Your task to perform on an android device: uninstall "WhatsApp Messenger" Image 0: 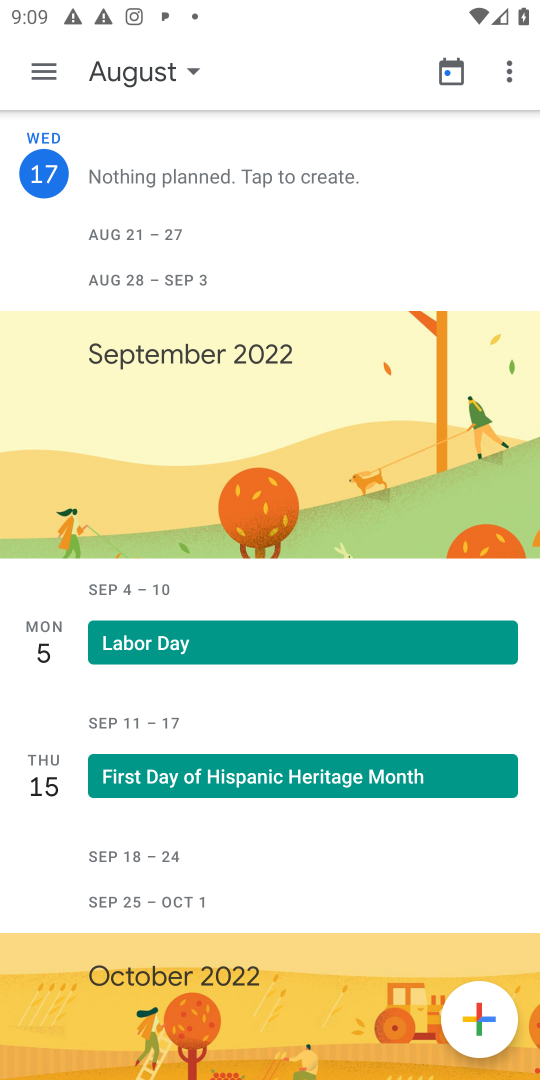
Step 0: press home button
Your task to perform on an android device: uninstall "WhatsApp Messenger" Image 1: 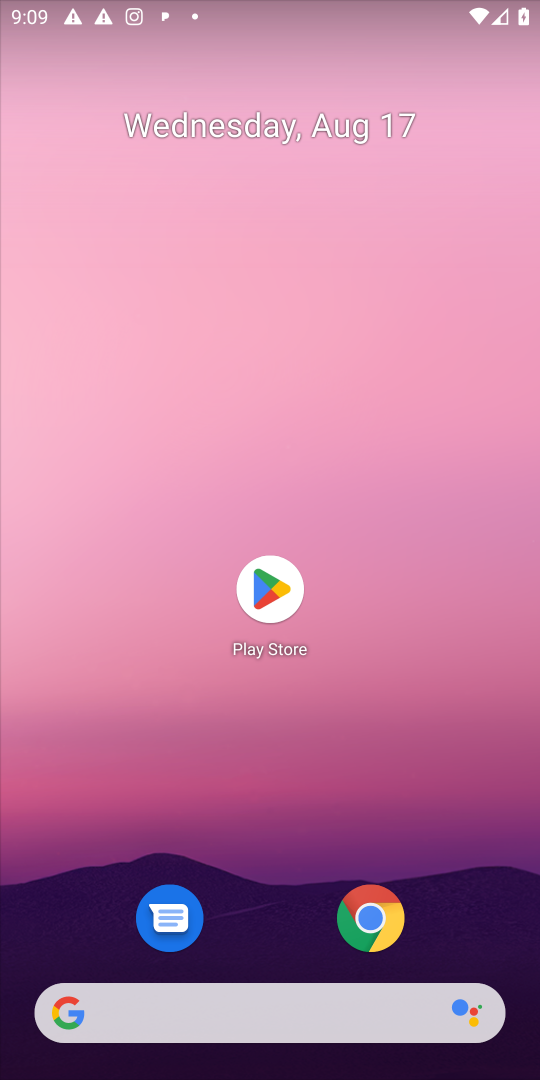
Step 1: click (279, 595)
Your task to perform on an android device: uninstall "WhatsApp Messenger" Image 2: 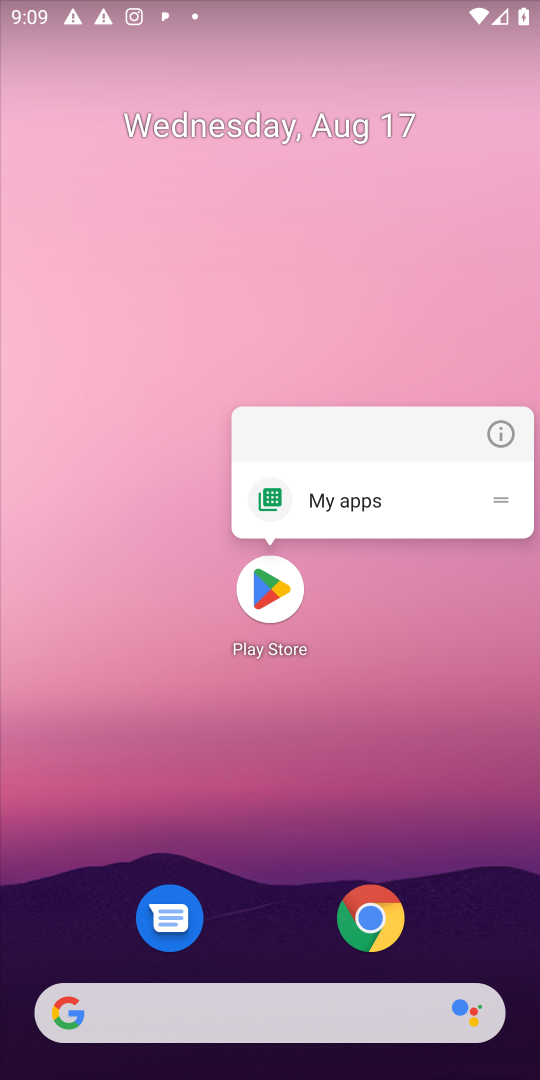
Step 2: click (271, 595)
Your task to perform on an android device: uninstall "WhatsApp Messenger" Image 3: 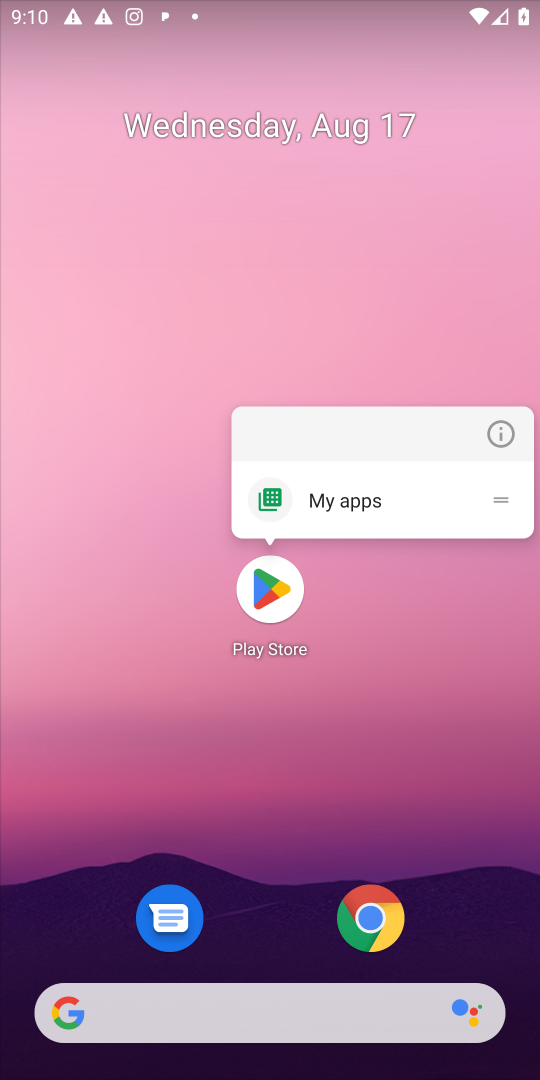
Step 3: click (261, 605)
Your task to perform on an android device: uninstall "WhatsApp Messenger" Image 4: 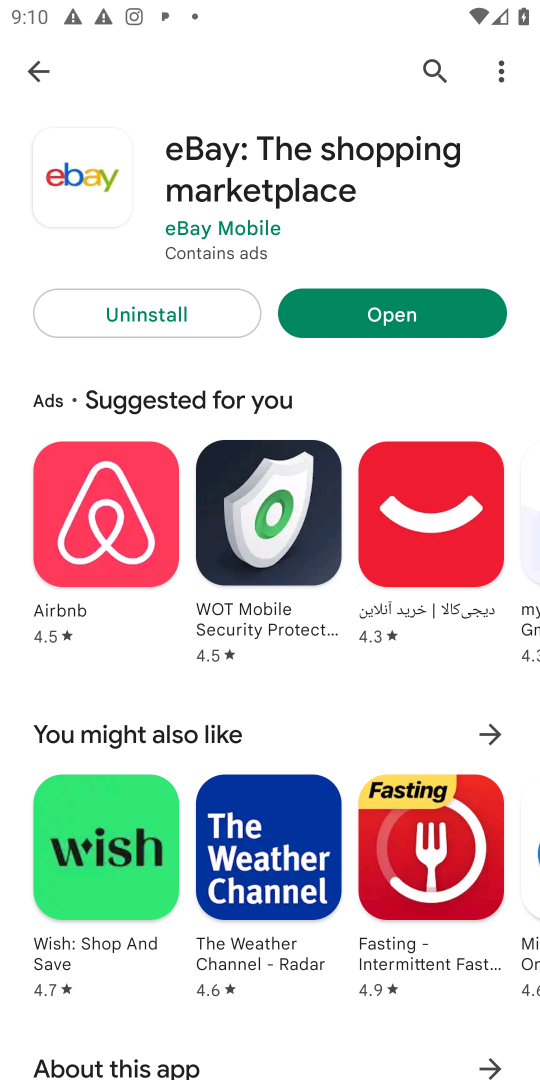
Step 4: click (439, 61)
Your task to perform on an android device: uninstall "WhatsApp Messenger" Image 5: 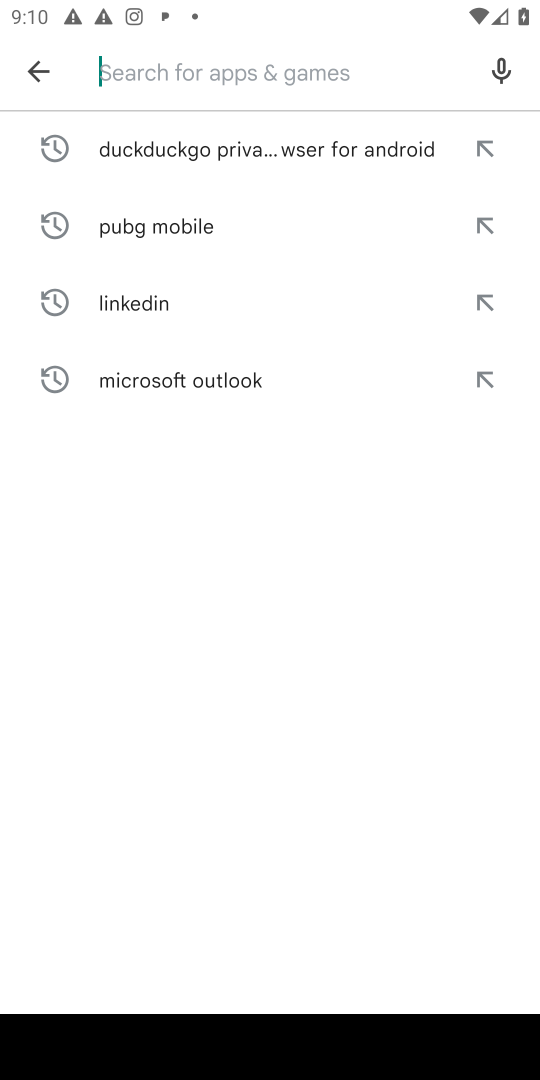
Step 5: type "WhatsApp Messenger"
Your task to perform on an android device: uninstall "WhatsApp Messenger" Image 6: 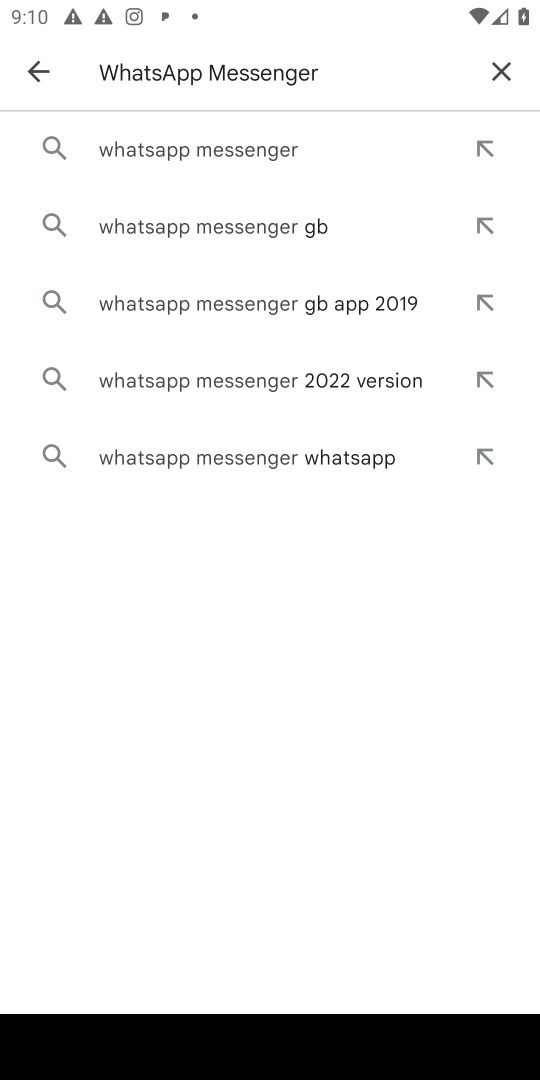
Step 6: click (264, 158)
Your task to perform on an android device: uninstall "WhatsApp Messenger" Image 7: 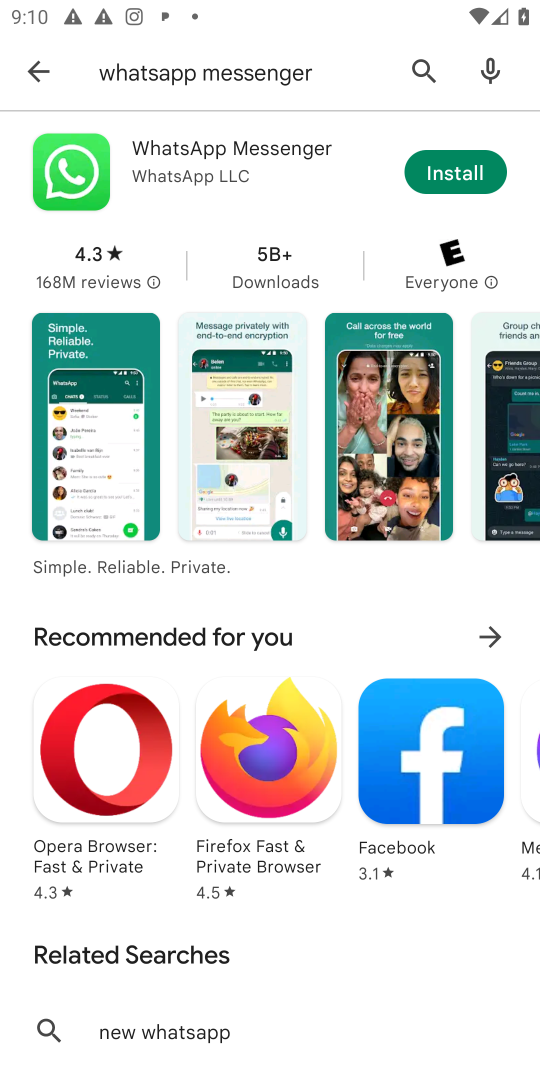
Step 7: task complete